Your task to perform on an android device: turn vacation reply on in the gmail app Image 0: 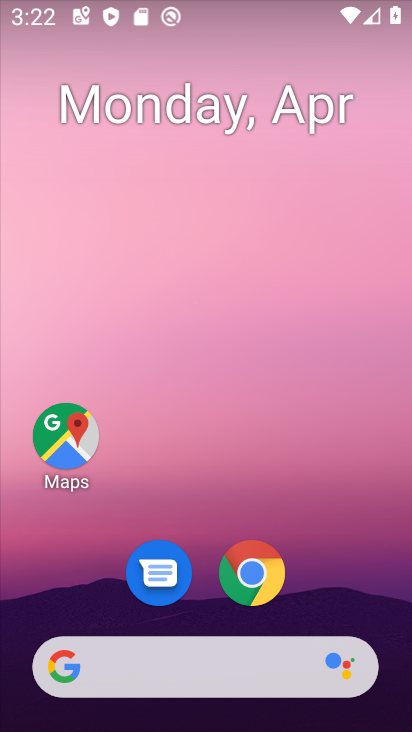
Step 0: drag from (359, 585) to (394, 114)
Your task to perform on an android device: turn vacation reply on in the gmail app Image 1: 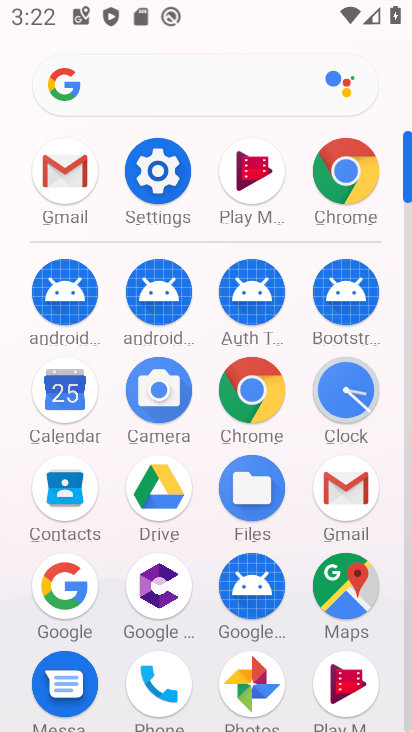
Step 1: click (361, 490)
Your task to perform on an android device: turn vacation reply on in the gmail app Image 2: 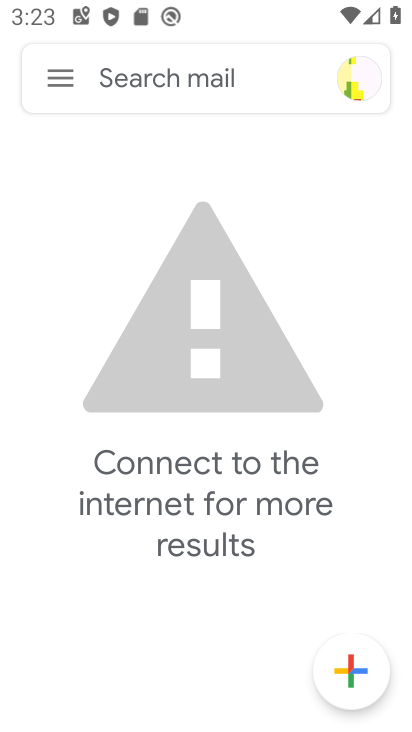
Step 2: click (68, 84)
Your task to perform on an android device: turn vacation reply on in the gmail app Image 3: 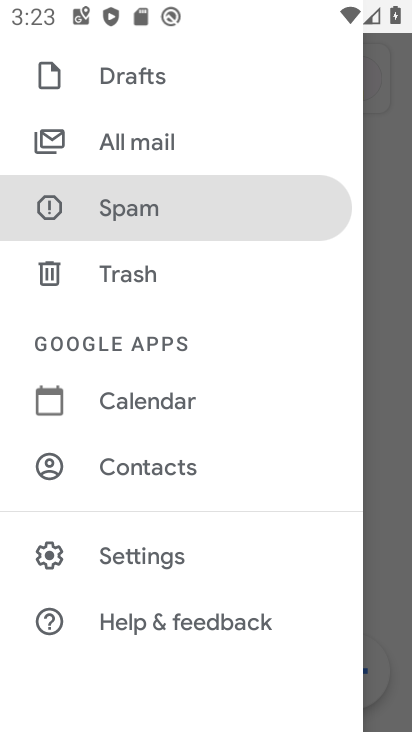
Step 3: drag from (290, 325) to (304, 446)
Your task to perform on an android device: turn vacation reply on in the gmail app Image 4: 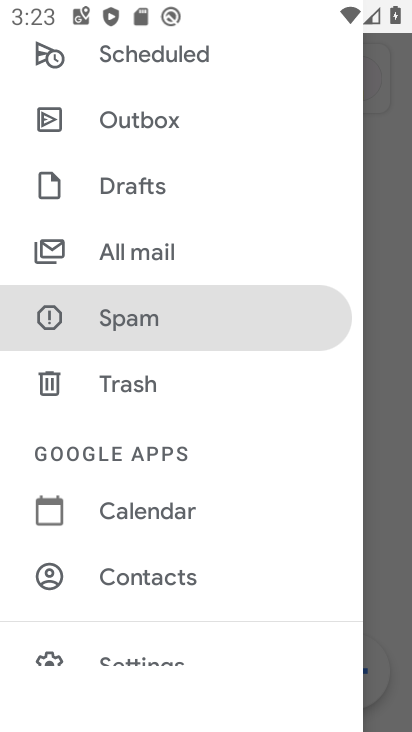
Step 4: drag from (332, 237) to (327, 371)
Your task to perform on an android device: turn vacation reply on in the gmail app Image 5: 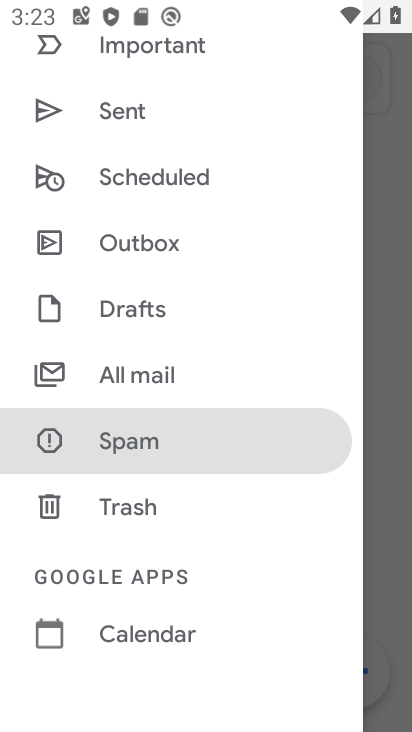
Step 5: drag from (308, 204) to (303, 337)
Your task to perform on an android device: turn vacation reply on in the gmail app Image 6: 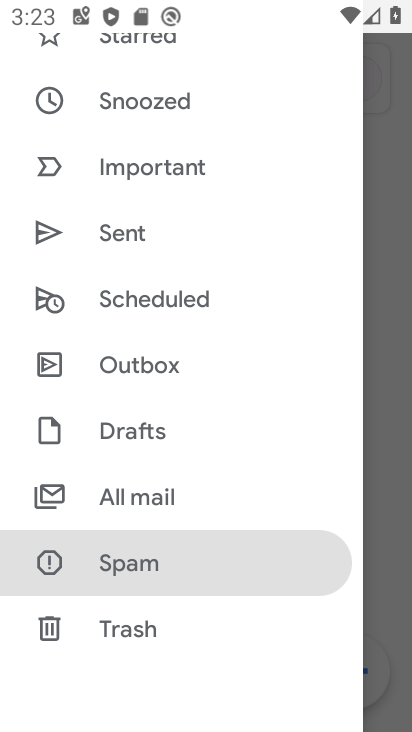
Step 6: drag from (291, 192) to (296, 351)
Your task to perform on an android device: turn vacation reply on in the gmail app Image 7: 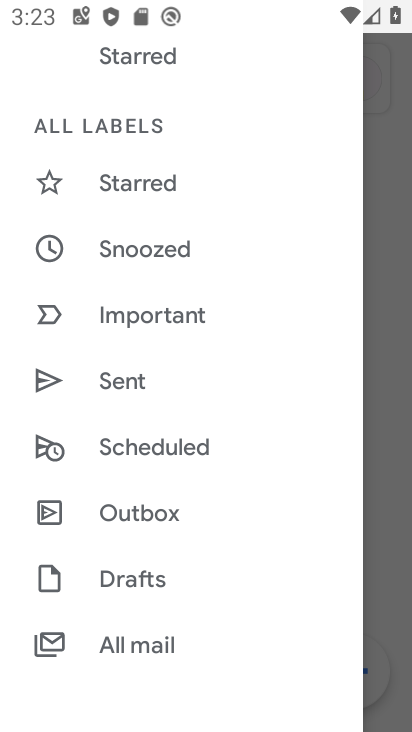
Step 7: drag from (302, 180) to (303, 338)
Your task to perform on an android device: turn vacation reply on in the gmail app Image 8: 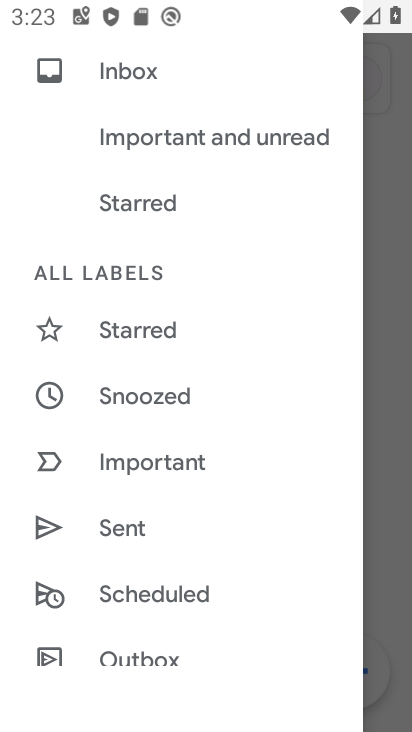
Step 8: drag from (303, 211) to (295, 388)
Your task to perform on an android device: turn vacation reply on in the gmail app Image 9: 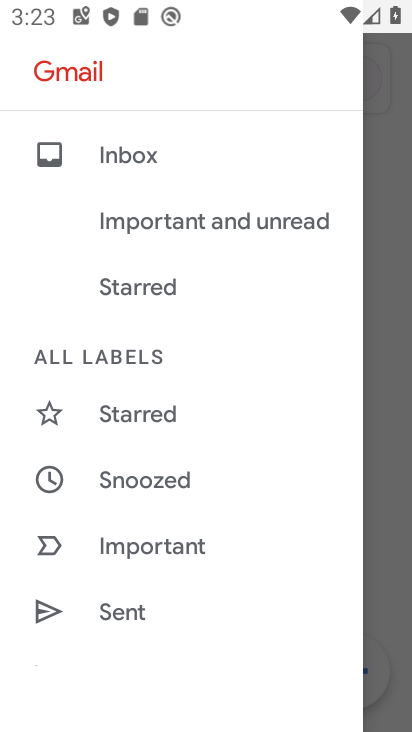
Step 9: drag from (273, 466) to (275, 315)
Your task to perform on an android device: turn vacation reply on in the gmail app Image 10: 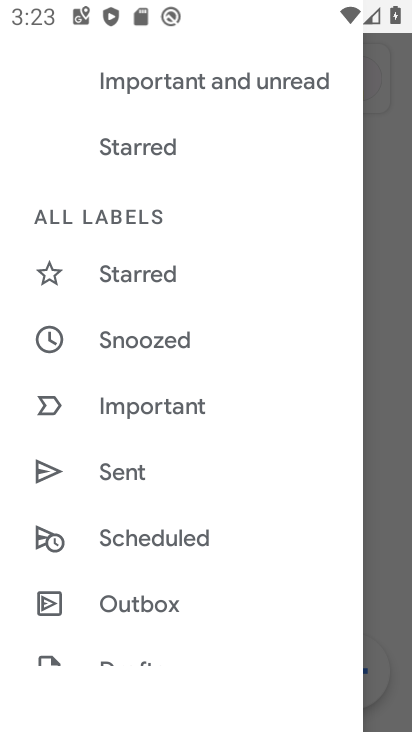
Step 10: drag from (275, 538) to (280, 380)
Your task to perform on an android device: turn vacation reply on in the gmail app Image 11: 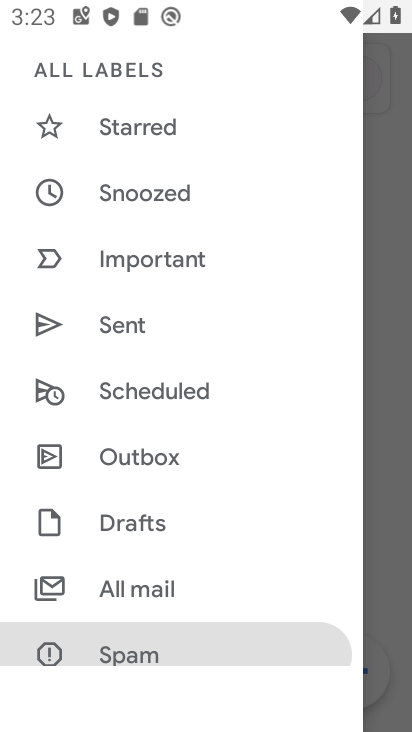
Step 11: drag from (259, 538) to (286, 387)
Your task to perform on an android device: turn vacation reply on in the gmail app Image 12: 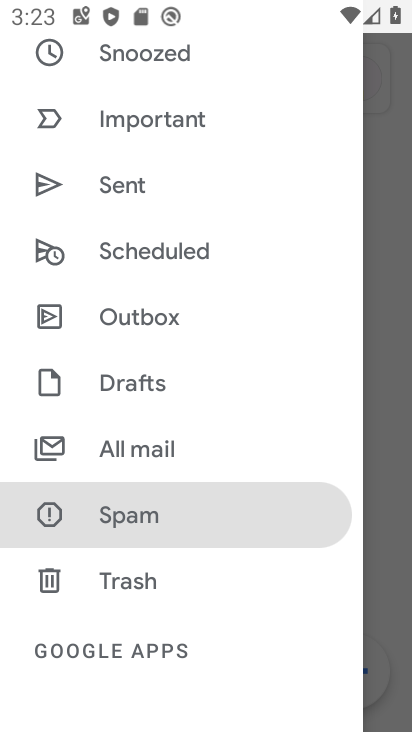
Step 12: drag from (277, 589) to (298, 405)
Your task to perform on an android device: turn vacation reply on in the gmail app Image 13: 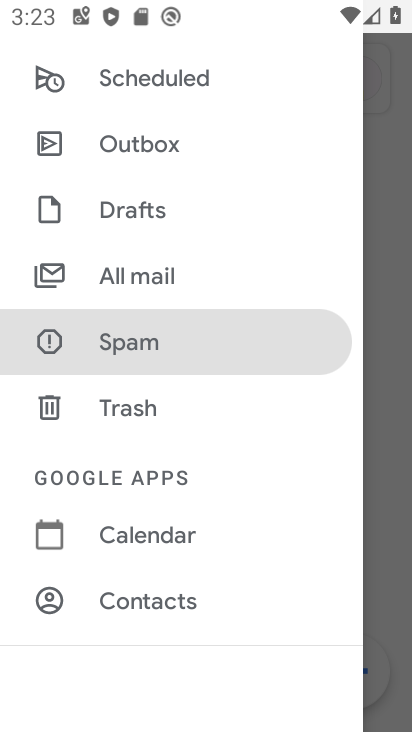
Step 13: drag from (282, 594) to (288, 454)
Your task to perform on an android device: turn vacation reply on in the gmail app Image 14: 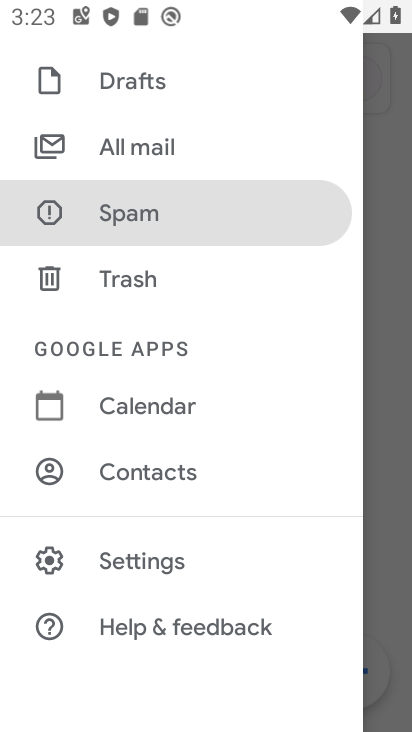
Step 14: click (204, 565)
Your task to perform on an android device: turn vacation reply on in the gmail app Image 15: 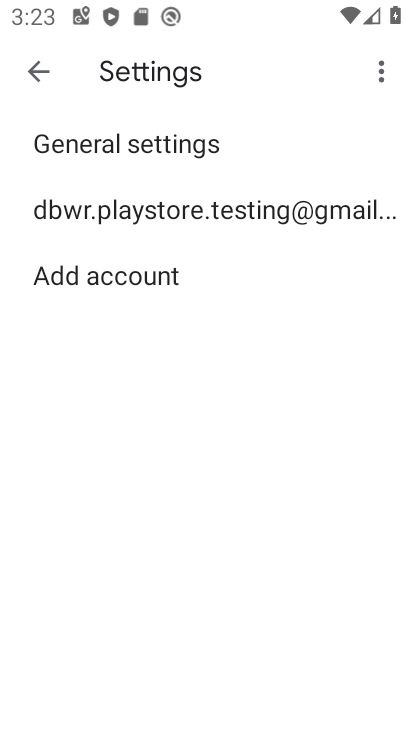
Step 15: click (264, 217)
Your task to perform on an android device: turn vacation reply on in the gmail app Image 16: 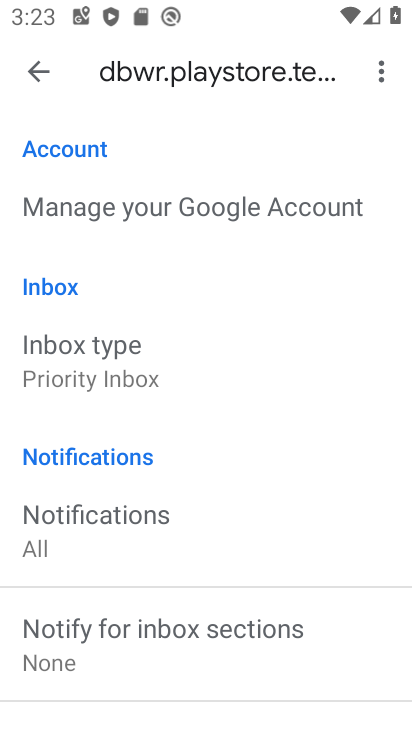
Step 16: drag from (313, 552) to (319, 406)
Your task to perform on an android device: turn vacation reply on in the gmail app Image 17: 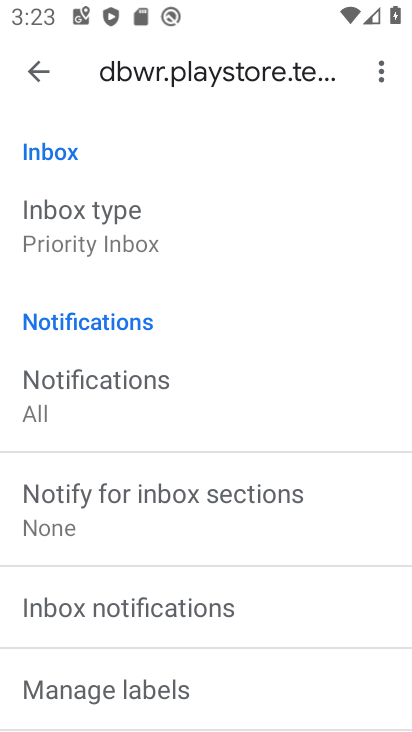
Step 17: drag from (327, 630) to (330, 484)
Your task to perform on an android device: turn vacation reply on in the gmail app Image 18: 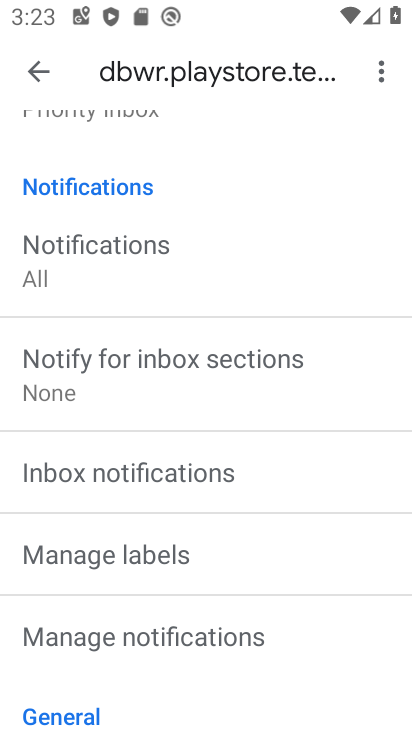
Step 18: drag from (317, 651) to (323, 487)
Your task to perform on an android device: turn vacation reply on in the gmail app Image 19: 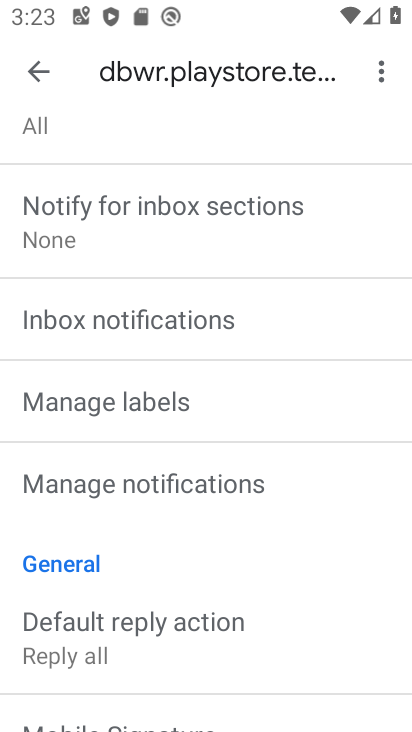
Step 19: drag from (321, 641) to (326, 526)
Your task to perform on an android device: turn vacation reply on in the gmail app Image 20: 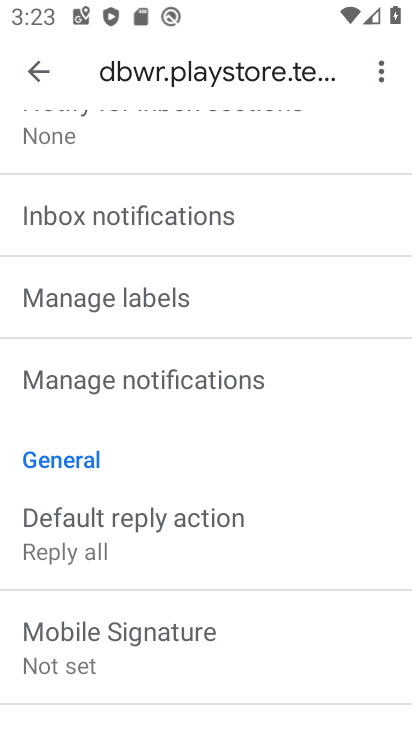
Step 20: drag from (313, 664) to (320, 508)
Your task to perform on an android device: turn vacation reply on in the gmail app Image 21: 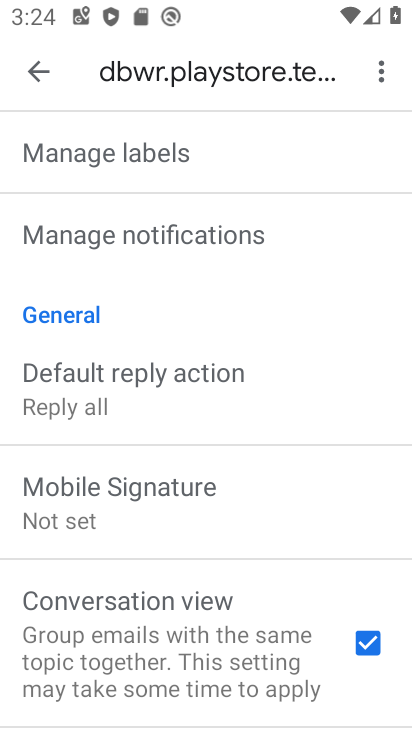
Step 21: drag from (323, 654) to (300, 488)
Your task to perform on an android device: turn vacation reply on in the gmail app Image 22: 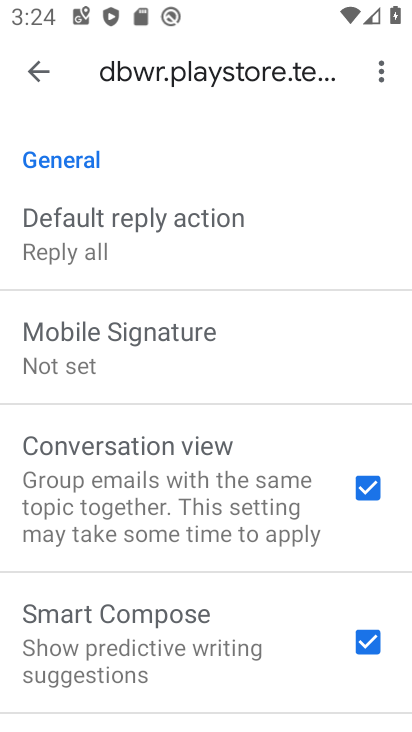
Step 22: drag from (284, 648) to (283, 531)
Your task to perform on an android device: turn vacation reply on in the gmail app Image 23: 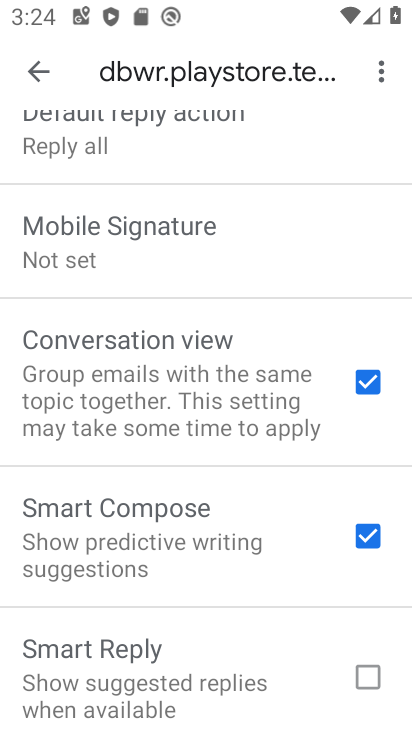
Step 23: drag from (287, 688) to (293, 509)
Your task to perform on an android device: turn vacation reply on in the gmail app Image 24: 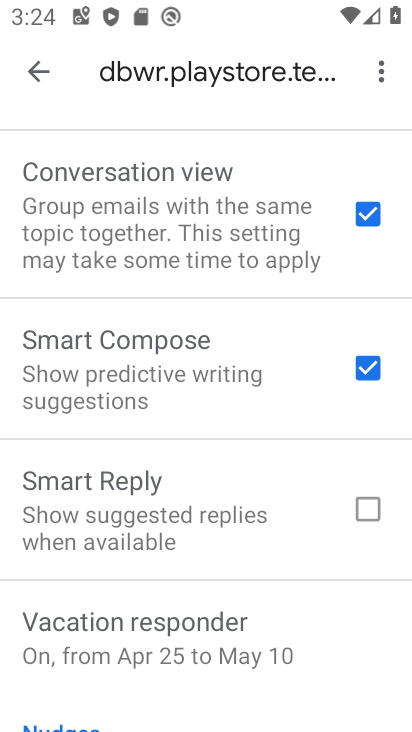
Step 24: drag from (319, 667) to (307, 526)
Your task to perform on an android device: turn vacation reply on in the gmail app Image 25: 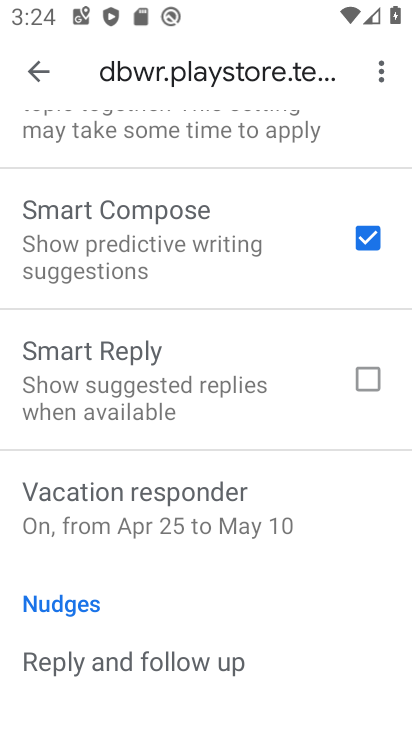
Step 25: click (236, 514)
Your task to perform on an android device: turn vacation reply on in the gmail app Image 26: 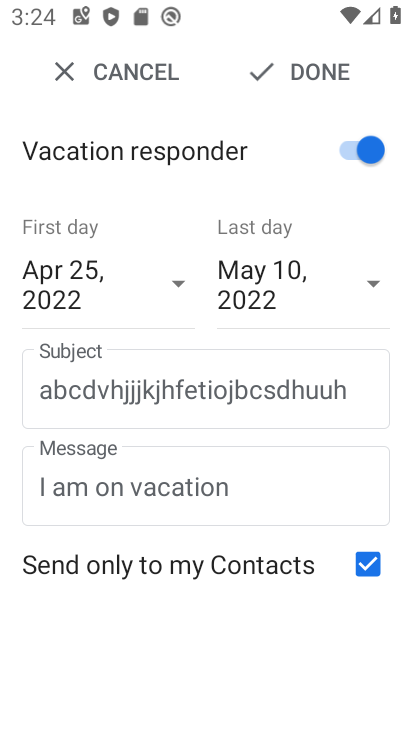
Step 26: task complete